Your task to perform on an android device: refresh tabs in the chrome app Image 0: 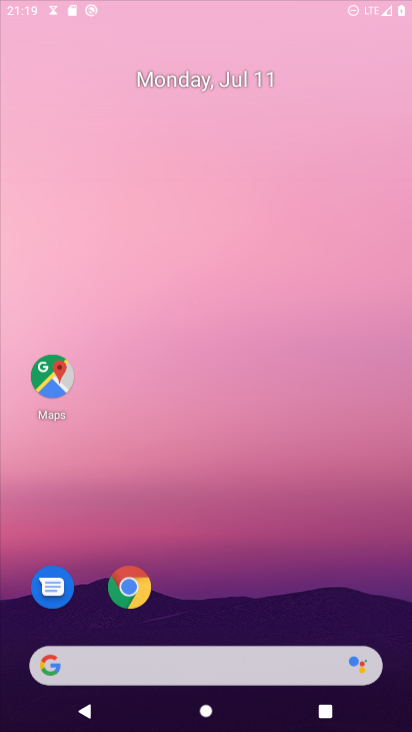
Step 0: press home button
Your task to perform on an android device: refresh tabs in the chrome app Image 1: 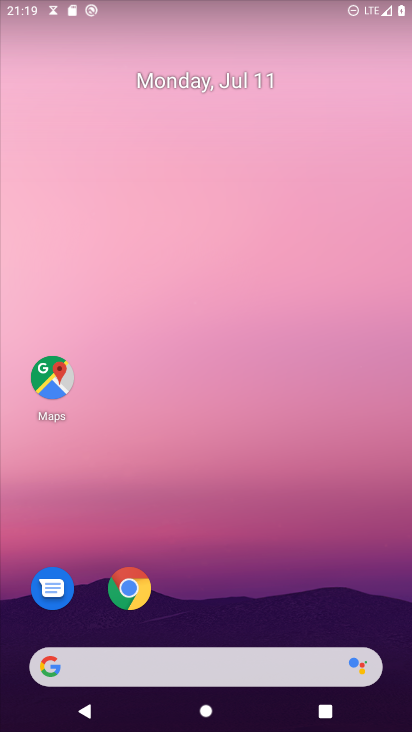
Step 1: drag from (245, 594) to (176, 126)
Your task to perform on an android device: refresh tabs in the chrome app Image 2: 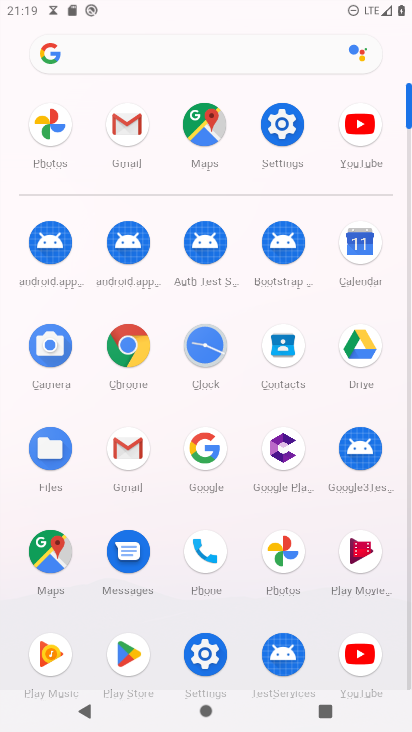
Step 2: click (128, 336)
Your task to perform on an android device: refresh tabs in the chrome app Image 3: 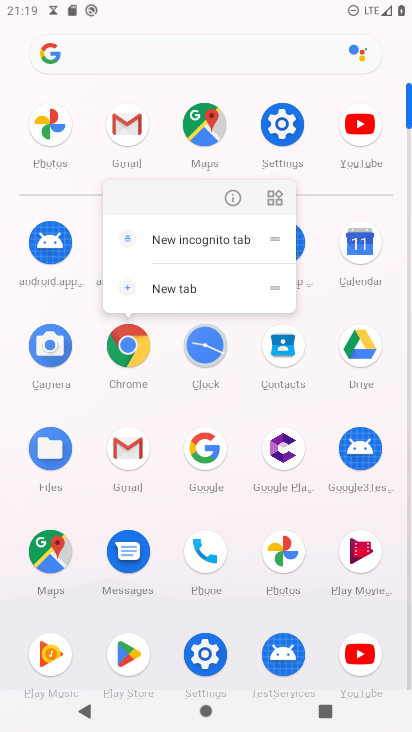
Step 3: click (118, 361)
Your task to perform on an android device: refresh tabs in the chrome app Image 4: 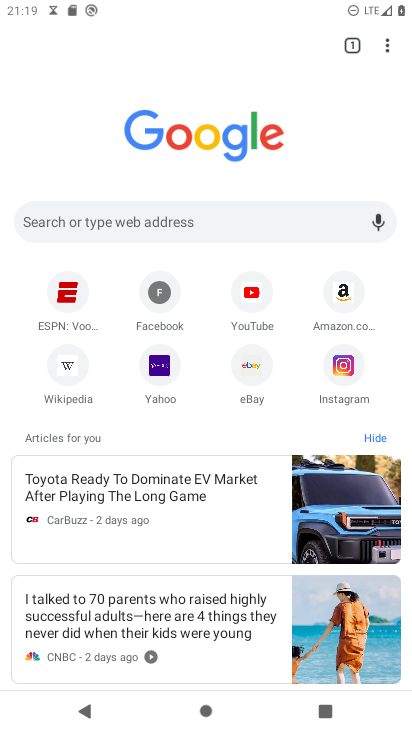
Step 4: click (400, 52)
Your task to perform on an android device: refresh tabs in the chrome app Image 5: 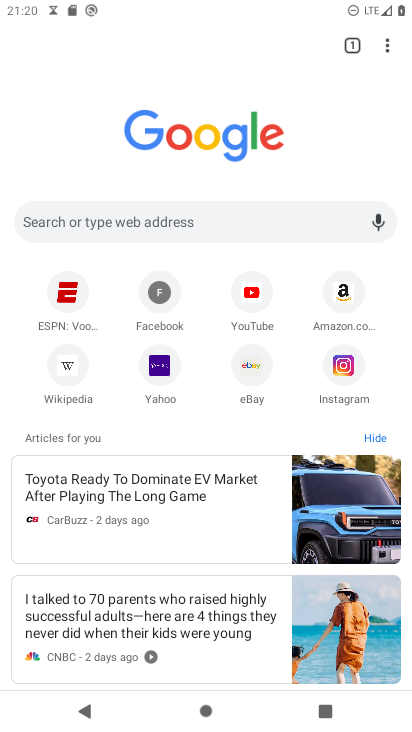
Step 5: task complete